Your task to perform on an android device: Open Yahoo.com Image 0: 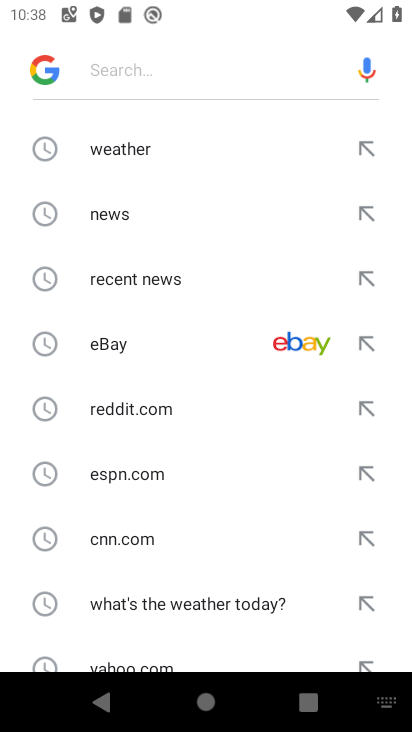
Step 0: press home button
Your task to perform on an android device: Open Yahoo.com Image 1: 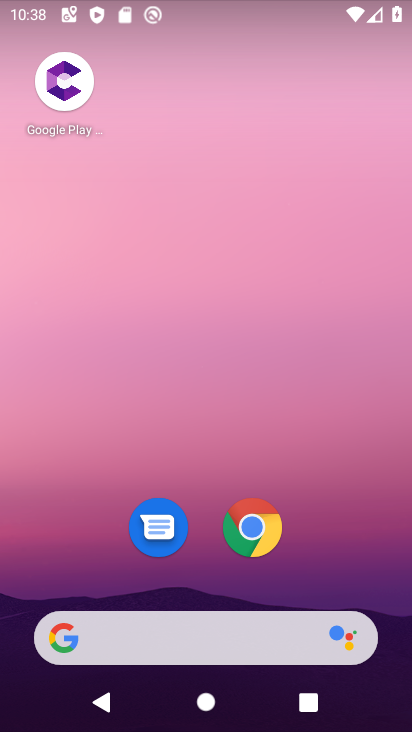
Step 1: drag from (375, 534) to (359, 103)
Your task to perform on an android device: Open Yahoo.com Image 2: 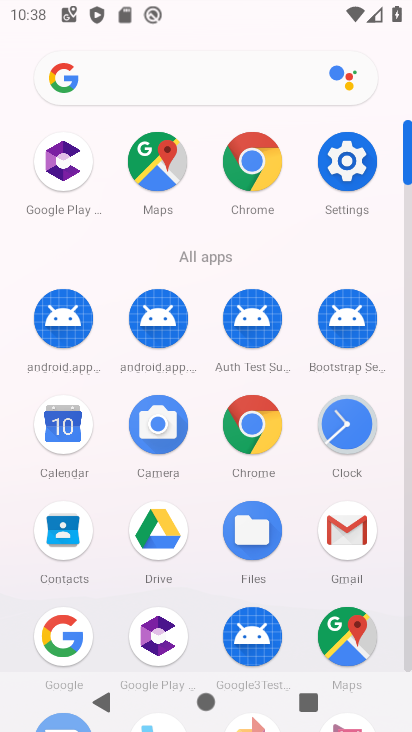
Step 2: click (254, 144)
Your task to perform on an android device: Open Yahoo.com Image 3: 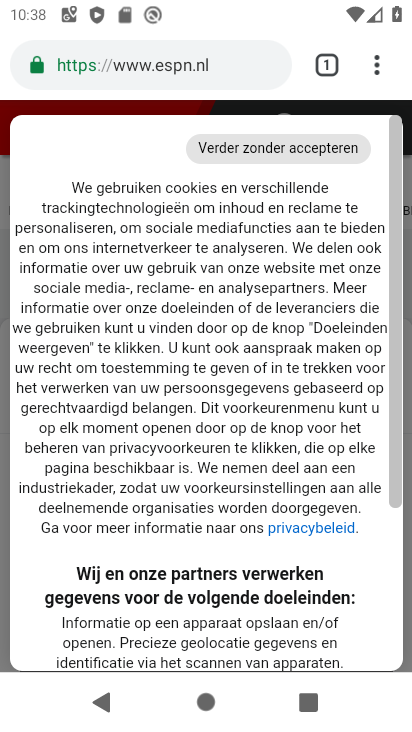
Step 3: task complete